Your task to perform on an android device: Open sound settings Image 0: 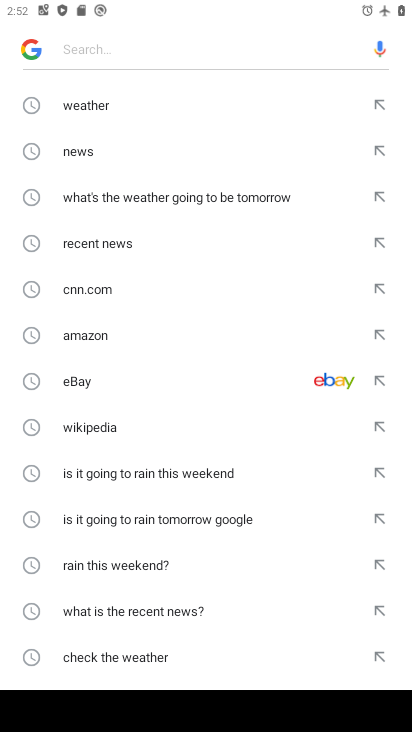
Step 0: press back button
Your task to perform on an android device: Open sound settings Image 1: 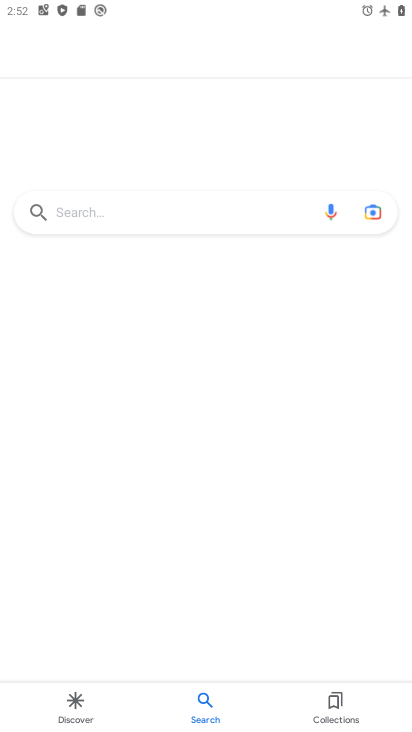
Step 1: press back button
Your task to perform on an android device: Open sound settings Image 2: 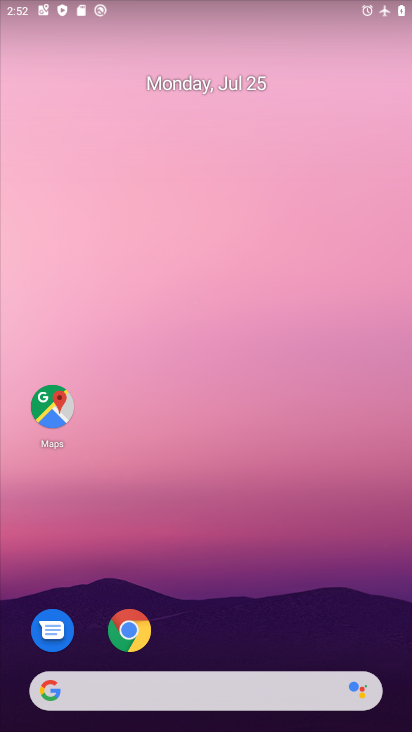
Step 2: drag from (262, 644) to (253, 63)
Your task to perform on an android device: Open sound settings Image 3: 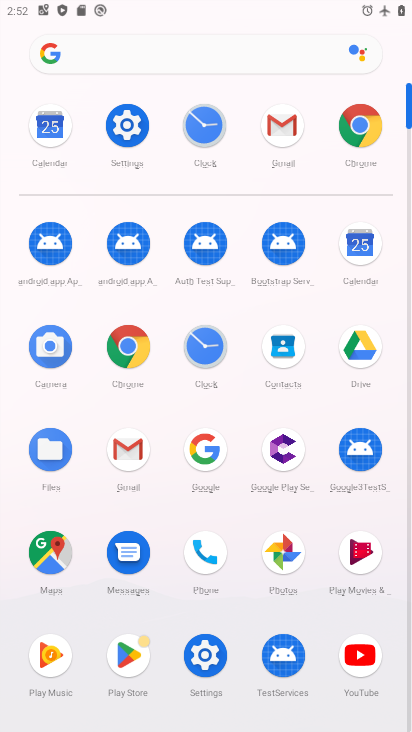
Step 3: click (141, 137)
Your task to perform on an android device: Open sound settings Image 4: 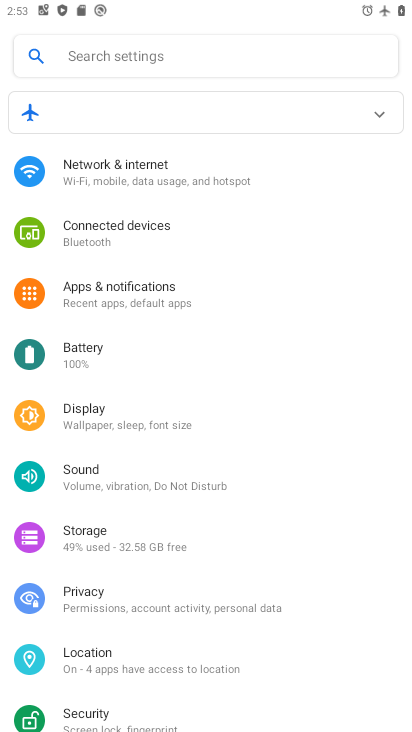
Step 4: click (102, 490)
Your task to perform on an android device: Open sound settings Image 5: 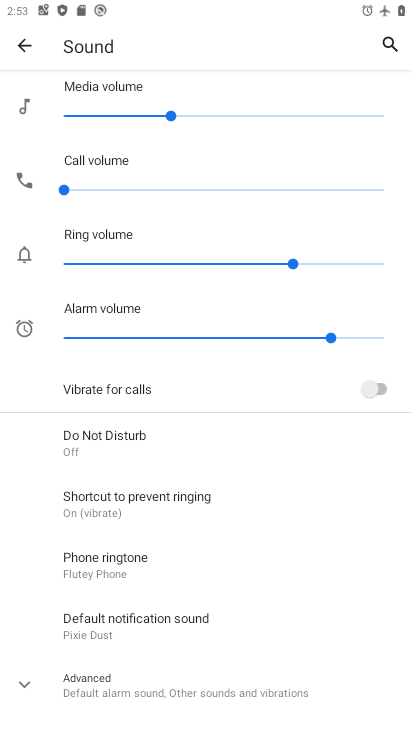
Step 5: task complete